Your task to perform on an android device: change timer sound Image 0: 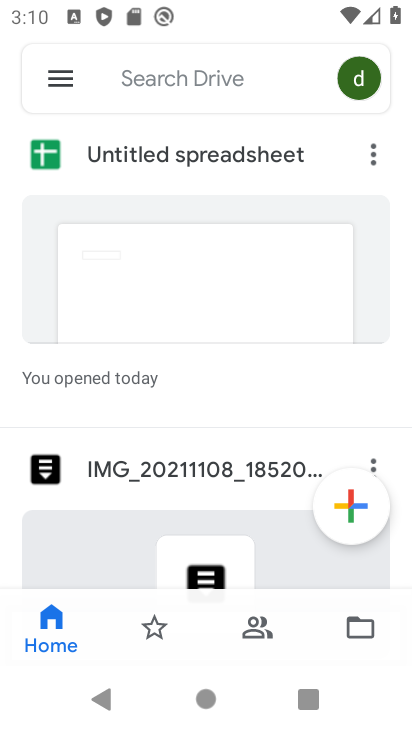
Step 0: press home button
Your task to perform on an android device: change timer sound Image 1: 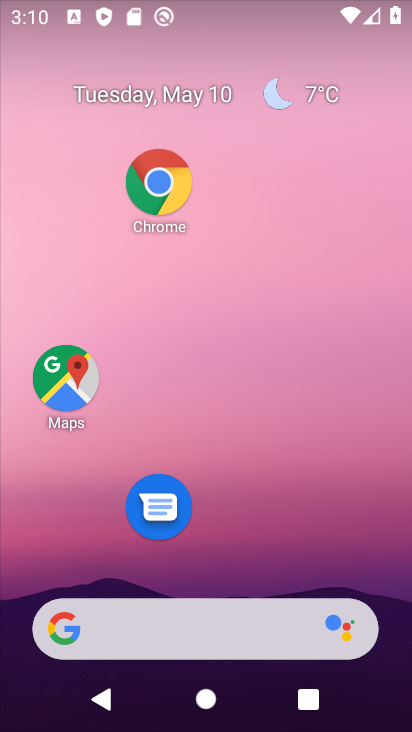
Step 1: drag from (210, 479) to (174, 89)
Your task to perform on an android device: change timer sound Image 2: 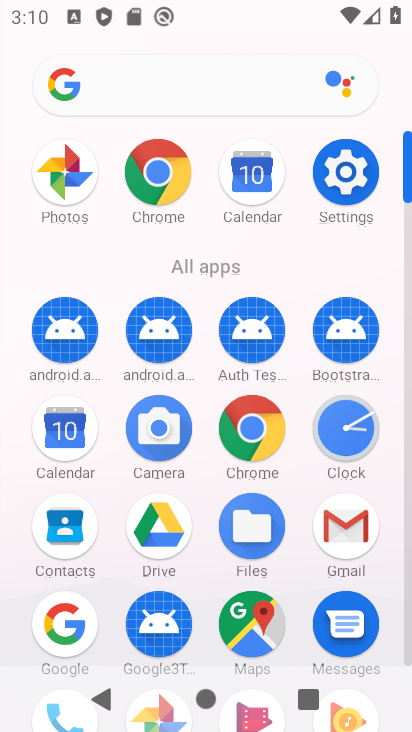
Step 2: click (337, 446)
Your task to perform on an android device: change timer sound Image 3: 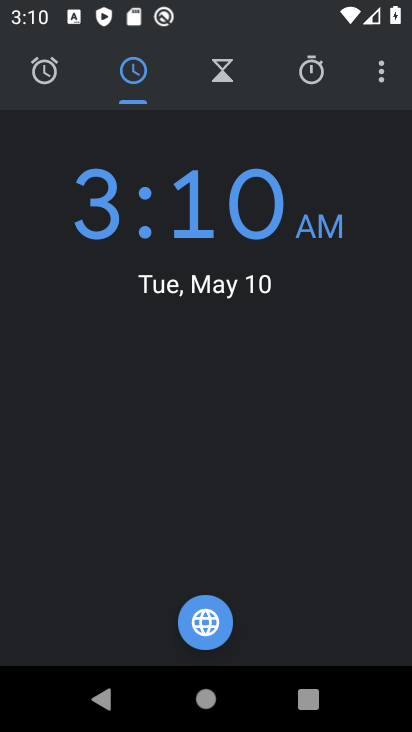
Step 3: click (369, 77)
Your task to perform on an android device: change timer sound Image 4: 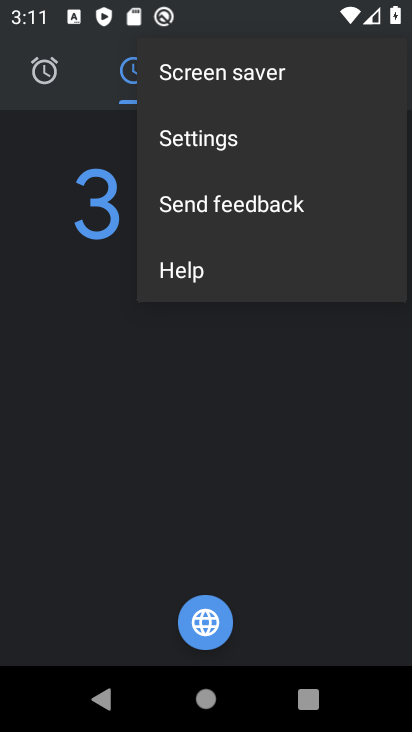
Step 4: click (213, 155)
Your task to perform on an android device: change timer sound Image 5: 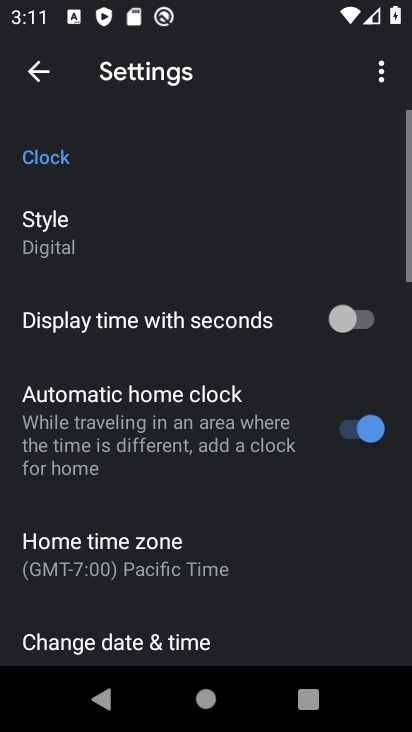
Step 5: drag from (211, 499) to (193, 188)
Your task to perform on an android device: change timer sound Image 6: 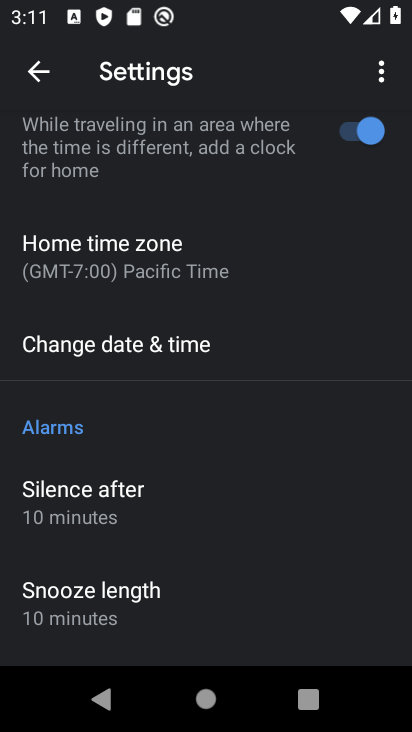
Step 6: drag from (199, 485) to (148, 193)
Your task to perform on an android device: change timer sound Image 7: 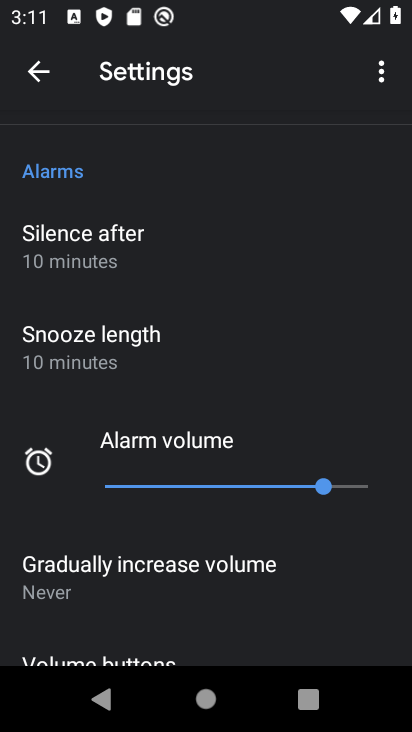
Step 7: drag from (164, 456) to (148, 194)
Your task to perform on an android device: change timer sound Image 8: 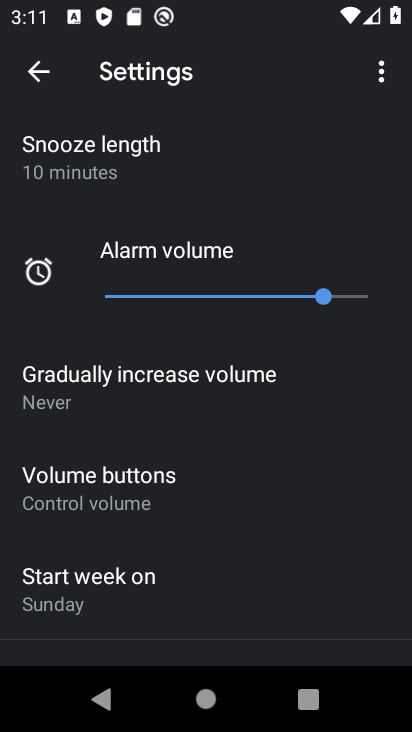
Step 8: drag from (158, 479) to (93, 202)
Your task to perform on an android device: change timer sound Image 9: 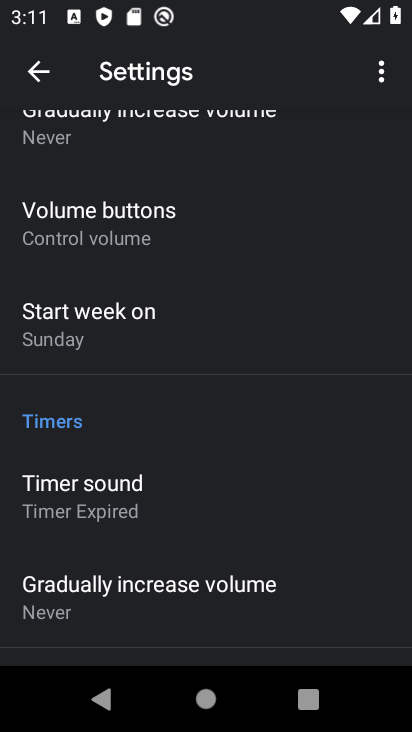
Step 9: click (160, 484)
Your task to perform on an android device: change timer sound Image 10: 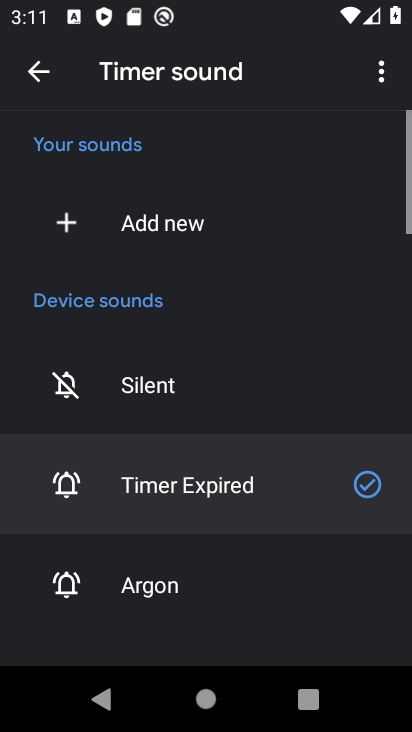
Step 10: click (174, 580)
Your task to perform on an android device: change timer sound Image 11: 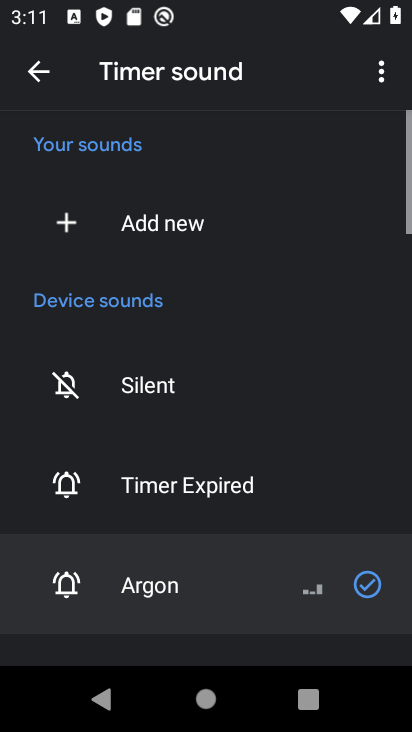
Step 11: task complete